Your task to perform on an android device: Show me productivity apps on the Play Store Image 0: 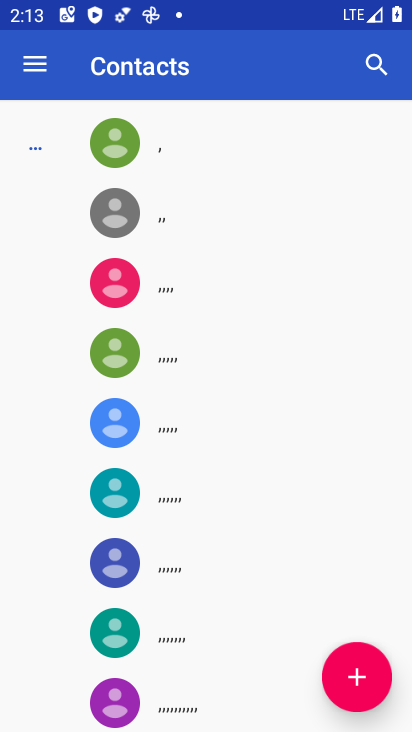
Step 0: press home button
Your task to perform on an android device: Show me productivity apps on the Play Store Image 1: 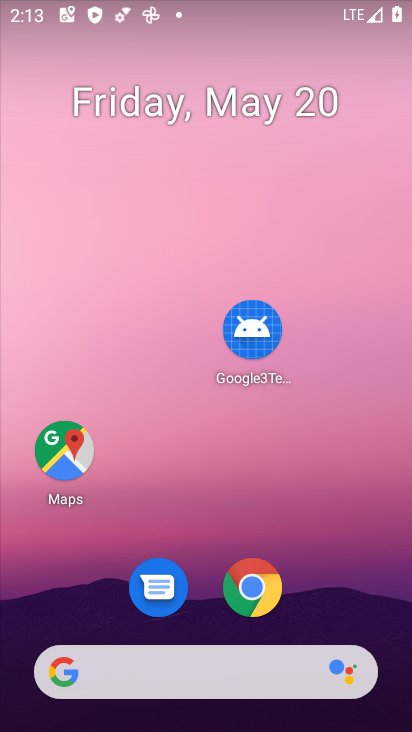
Step 1: drag from (319, 484) to (272, 94)
Your task to perform on an android device: Show me productivity apps on the Play Store Image 2: 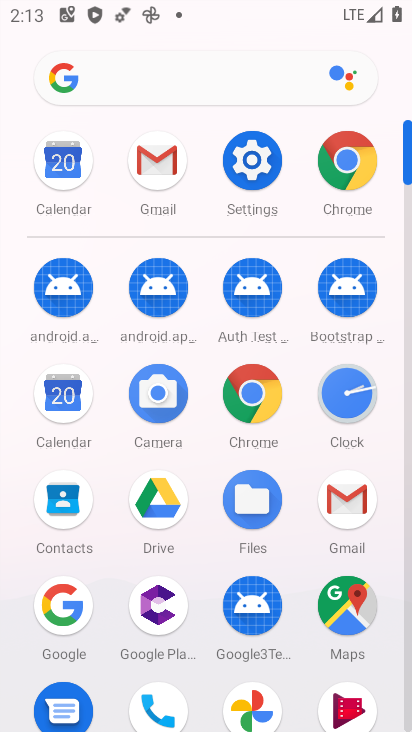
Step 2: drag from (205, 584) to (198, 280)
Your task to perform on an android device: Show me productivity apps on the Play Store Image 3: 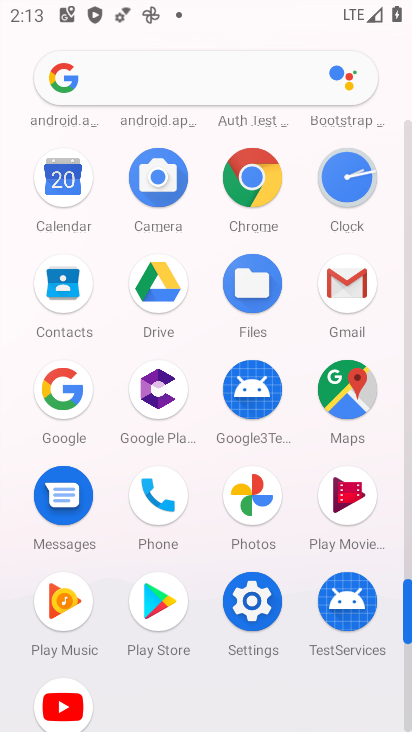
Step 3: click (160, 595)
Your task to perform on an android device: Show me productivity apps on the Play Store Image 4: 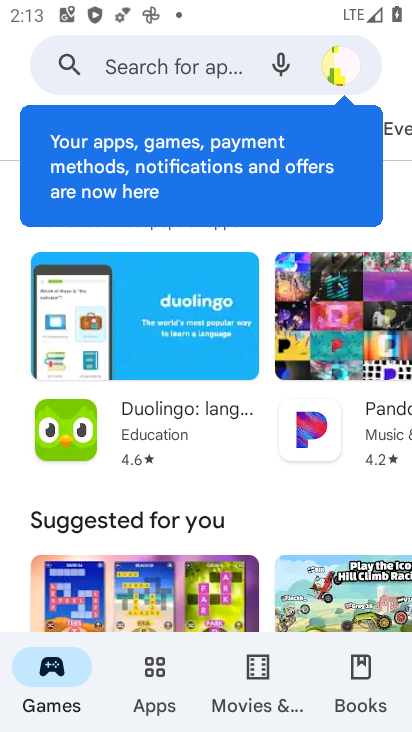
Step 4: click (145, 676)
Your task to perform on an android device: Show me productivity apps on the Play Store Image 5: 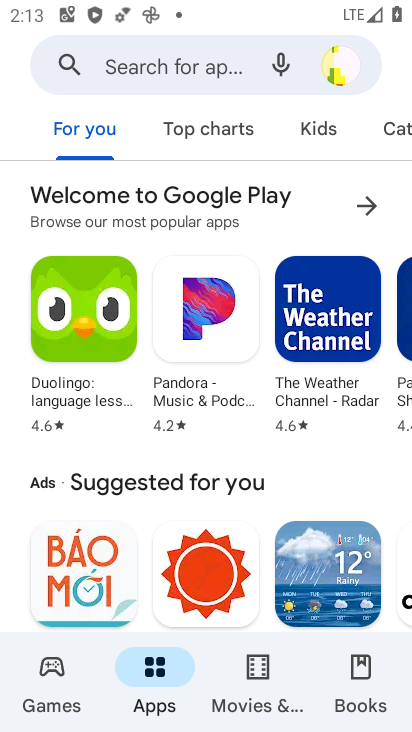
Step 5: task complete